Your task to perform on an android device: manage bookmarks in the chrome app Image 0: 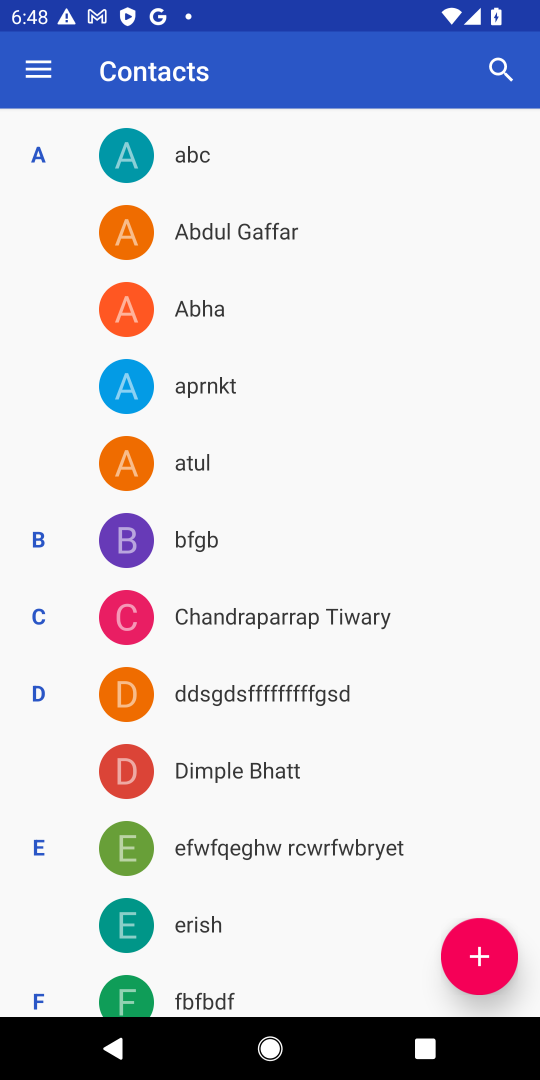
Step 0: press home button
Your task to perform on an android device: manage bookmarks in the chrome app Image 1: 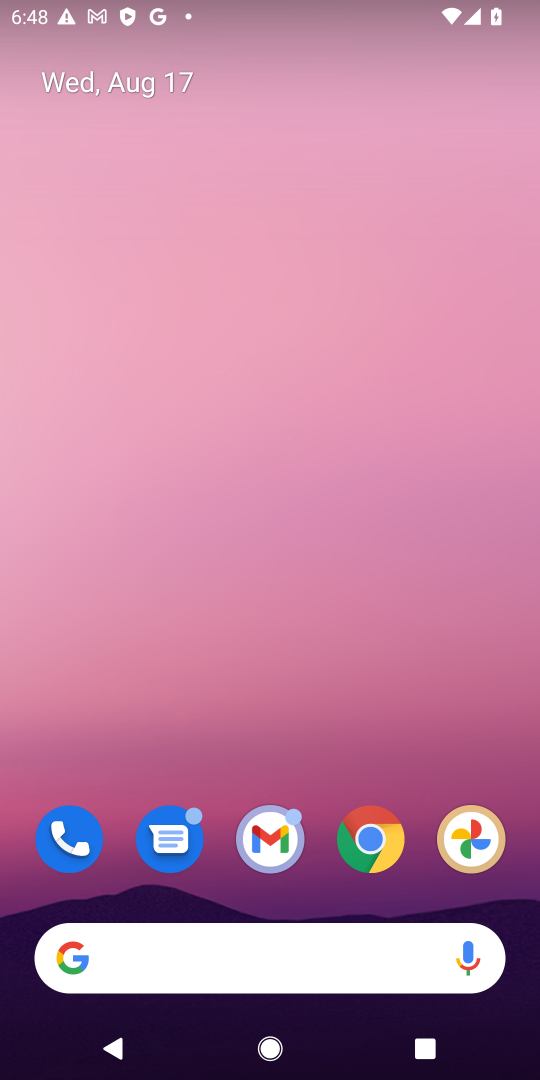
Step 1: click (386, 869)
Your task to perform on an android device: manage bookmarks in the chrome app Image 2: 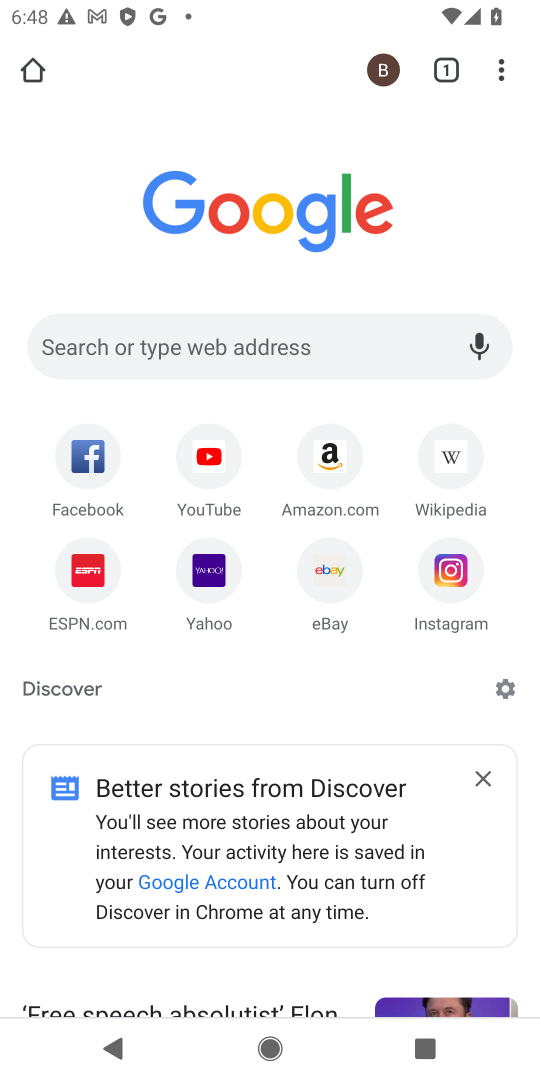
Step 2: click (502, 68)
Your task to perform on an android device: manage bookmarks in the chrome app Image 3: 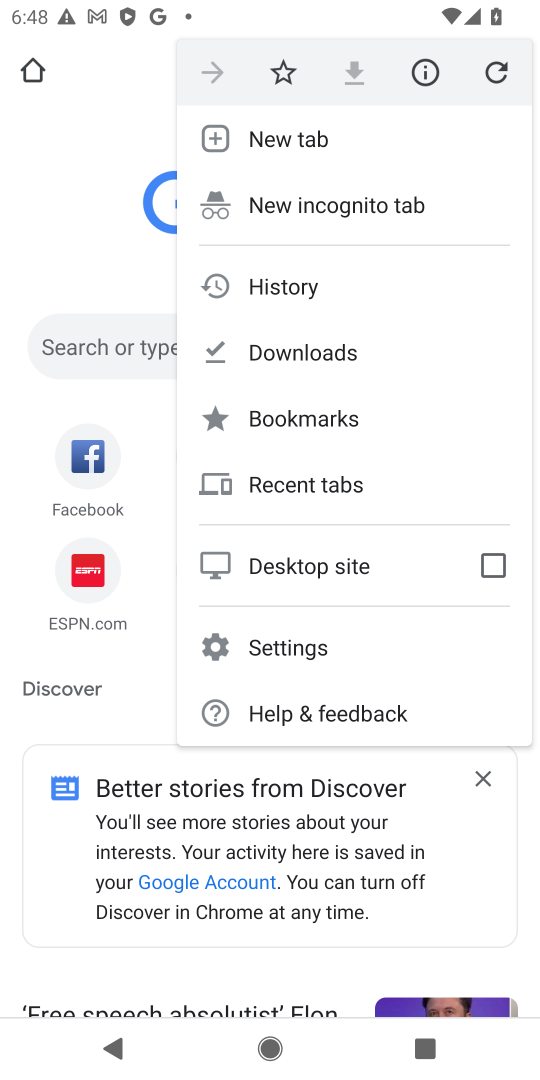
Step 3: click (321, 388)
Your task to perform on an android device: manage bookmarks in the chrome app Image 4: 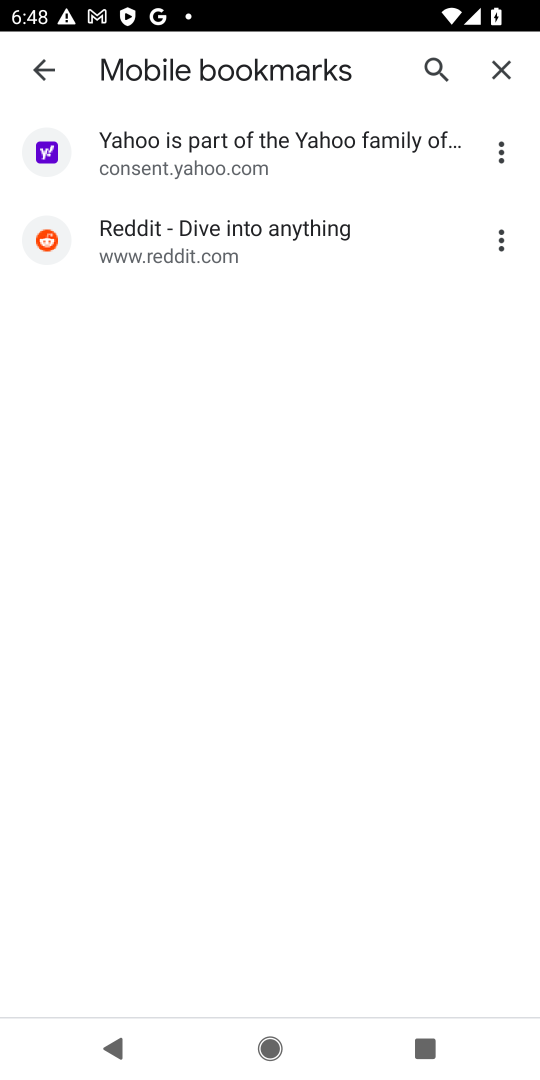
Step 4: click (504, 173)
Your task to perform on an android device: manage bookmarks in the chrome app Image 5: 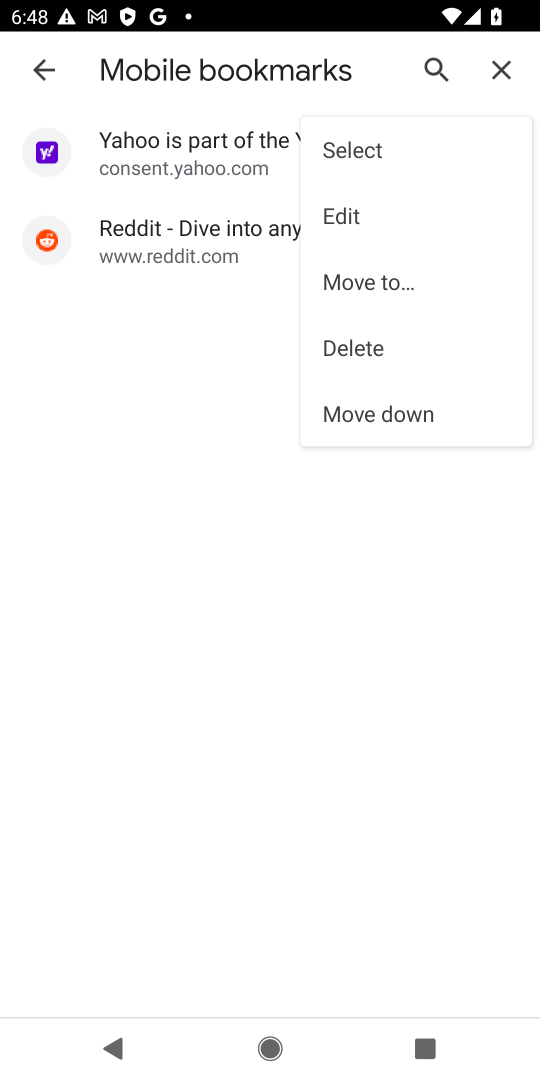
Step 5: click (376, 209)
Your task to perform on an android device: manage bookmarks in the chrome app Image 6: 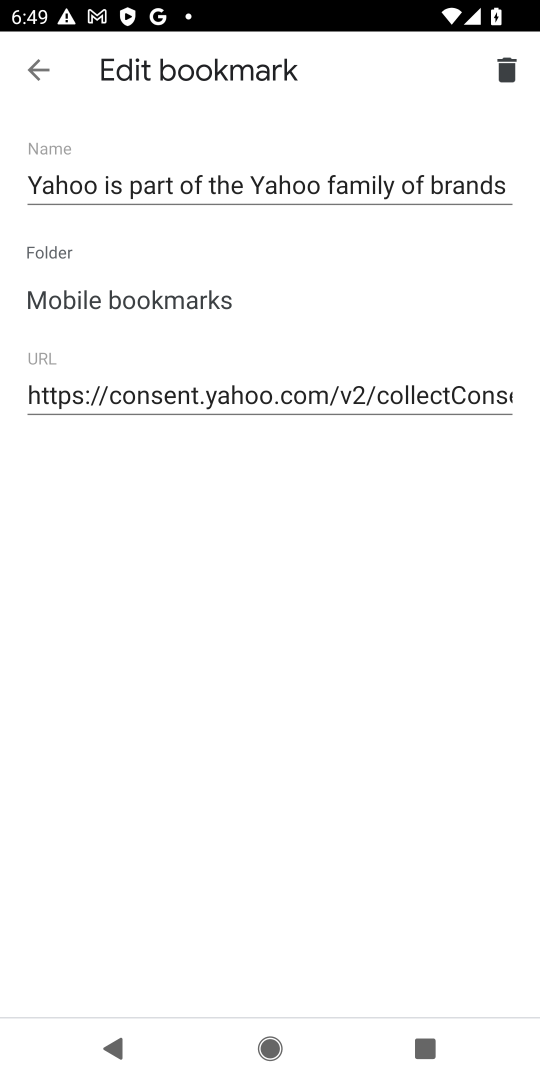
Step 6: click (506, 75)
Your task to perform on an android device: manage bookmarks in the chrome app Image 7: 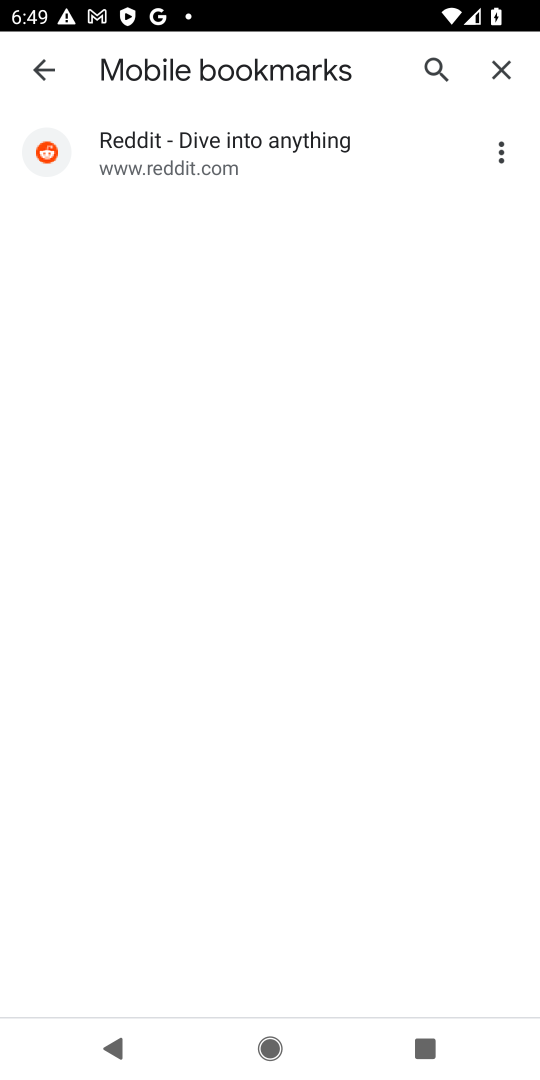
Step 7: task complete